Your task to perform on an android device: Show me recent news Image 0: 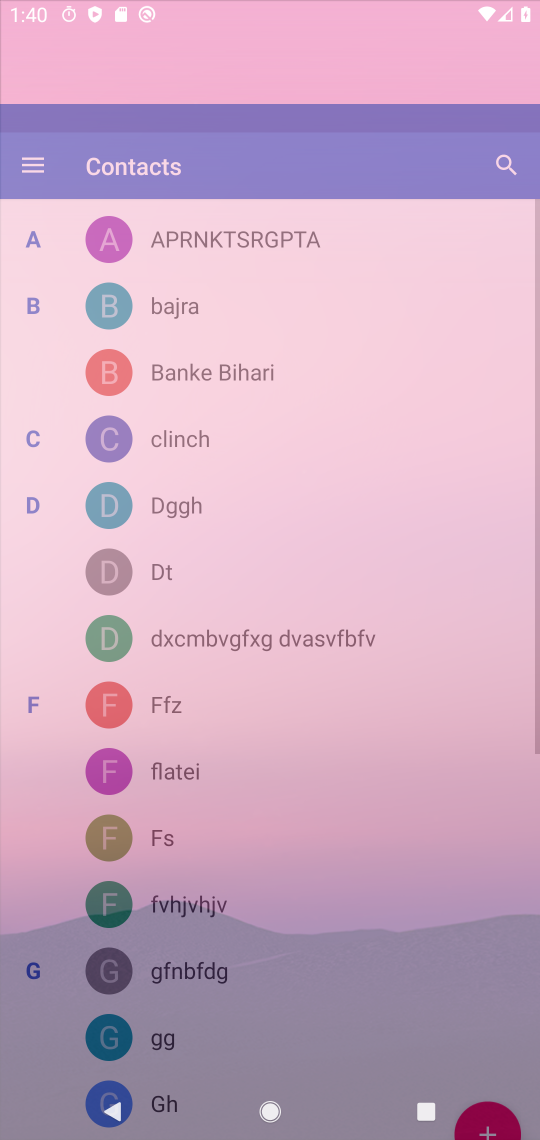
Step 0: press home button
Your task to perform on an android device: Show me recent news Image 1: 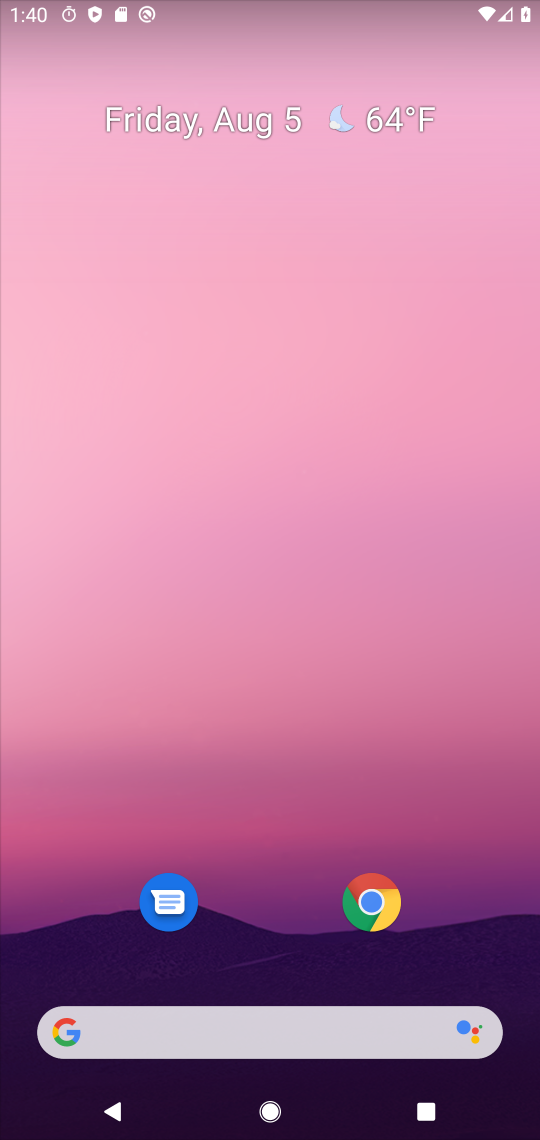
Step 1: click (177, 1032)
Your task to perform on an android device: Show me recent news Image 2: 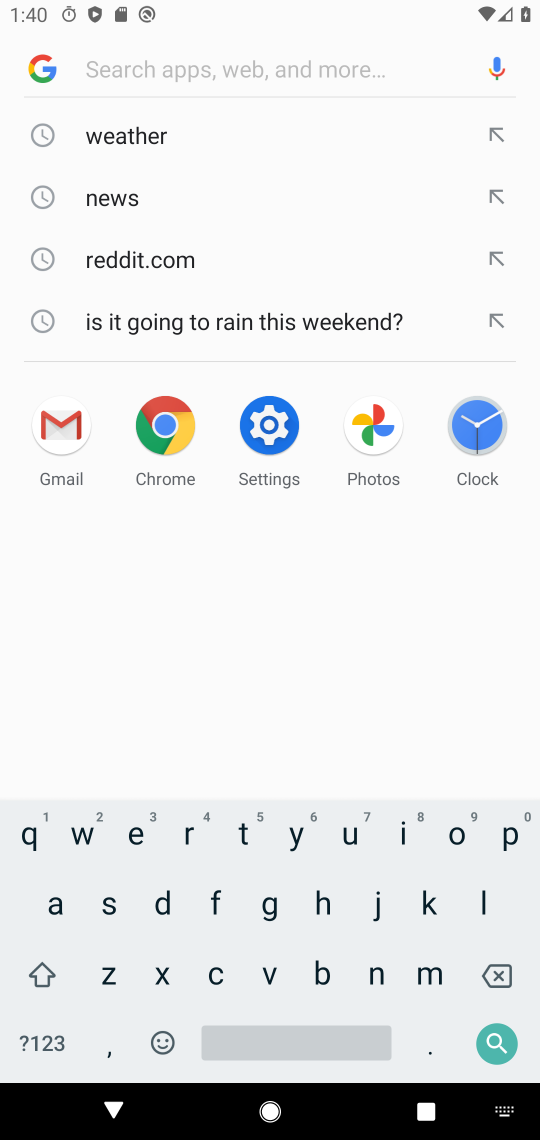
Step 2: click (189, 849)
Your task to perform on an android device: Show me recent news Image 3: 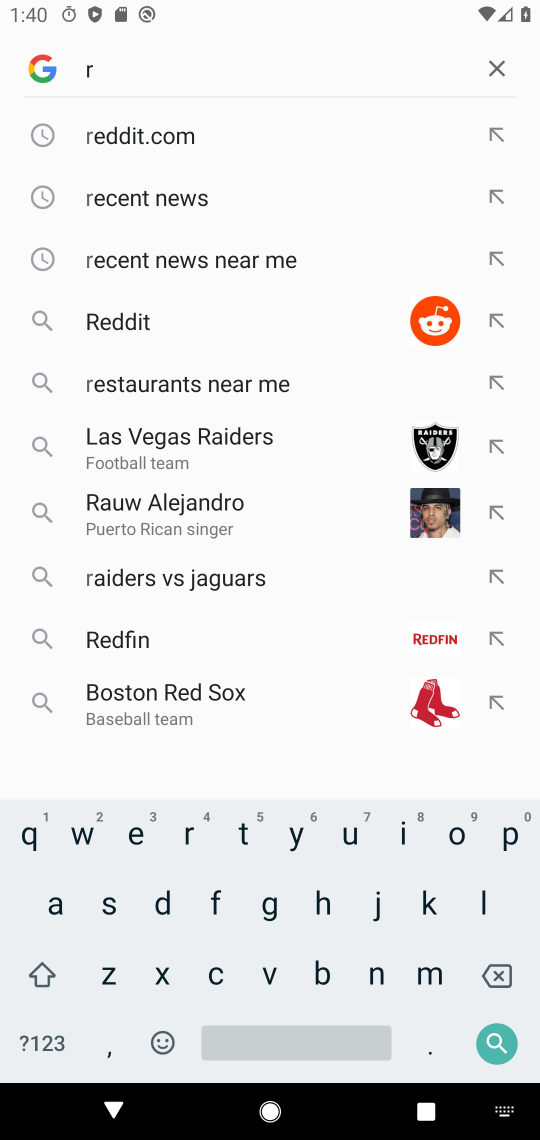
Step 3: click (124, 196)
Your task to perform on an android device: Show me recent news Image 4: 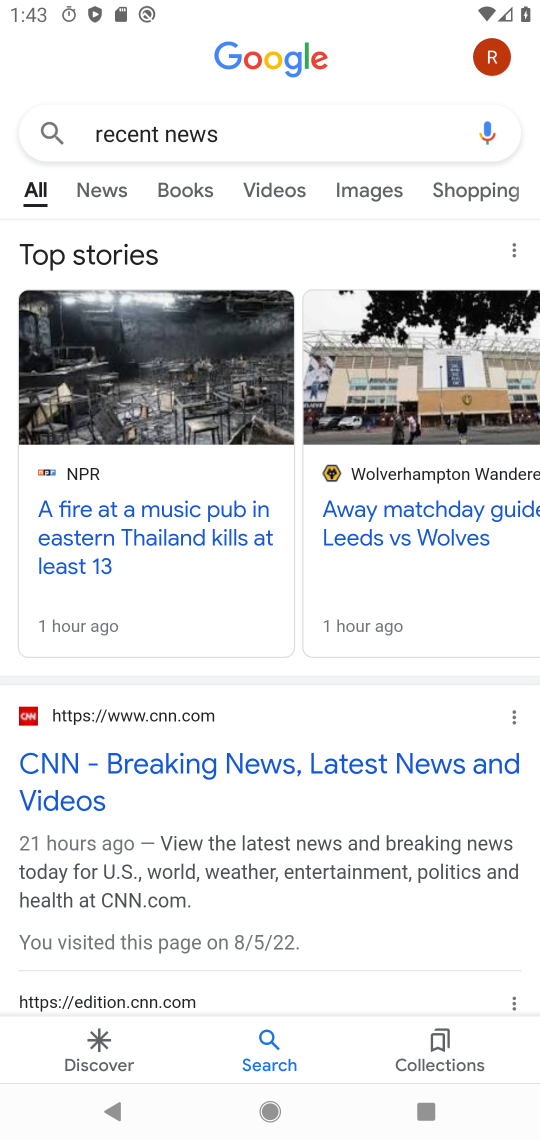
Step 4: task complete